Your task to perform on an android device: check storage Image 0: 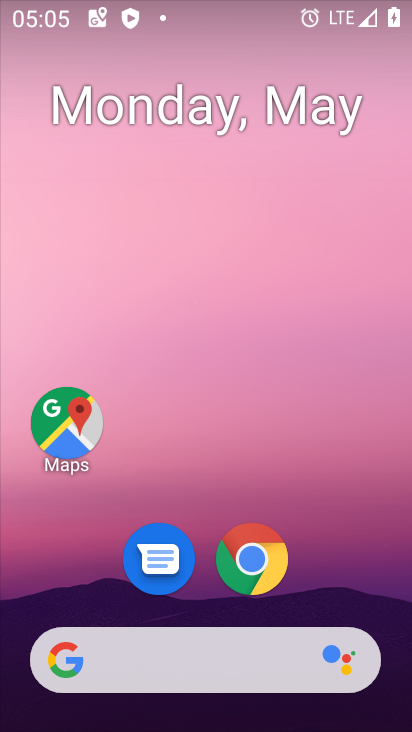
Step 0: drag from (310, 620) to (371, 88)
Your task to perform on an android device: check storage Image 1: 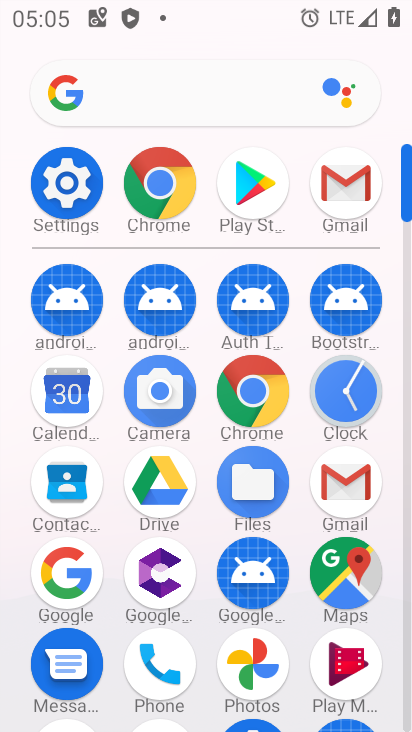
Step 1: click (59, 190)
Your task to perform on an android device: check storage Image 2: 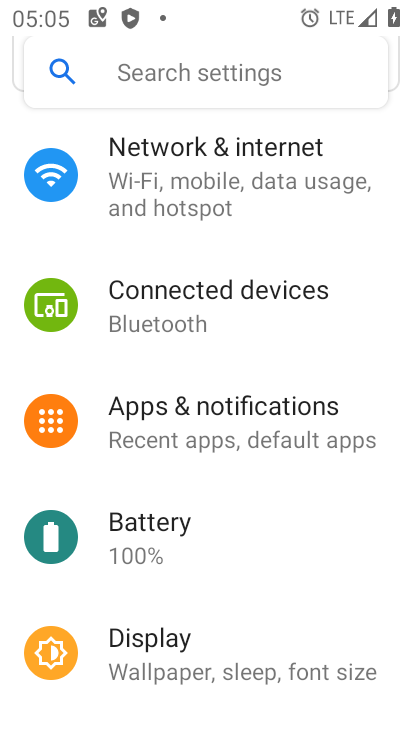
Step 2: drag from (171, 647) to (228, 360)
Your task to perform on an android device: check storage Image 3: 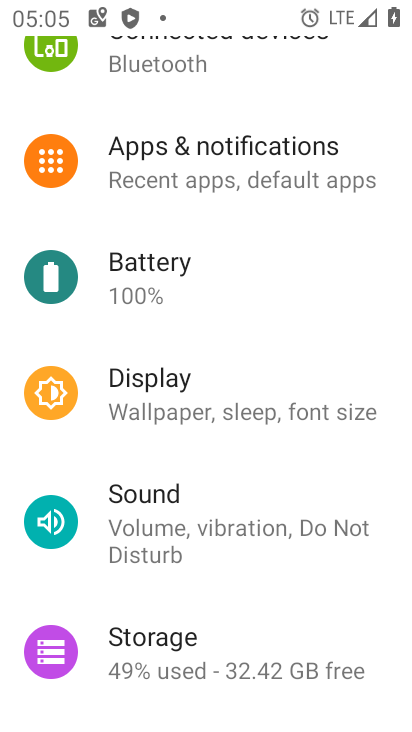
Step 3: click (273, 649)
Your task to perform on an android device: check storage Image 4: 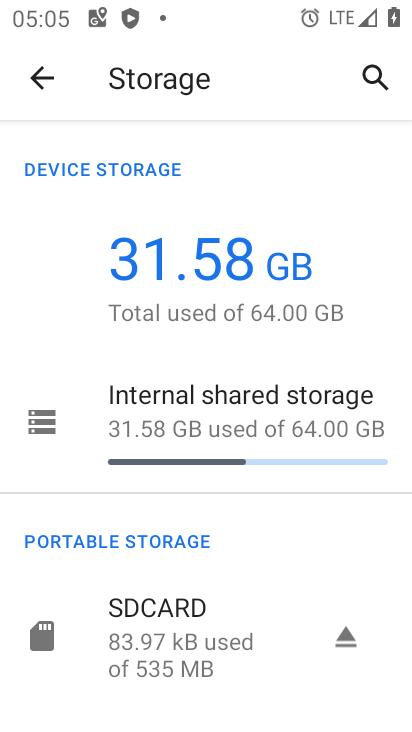
Step 4: task complete